Your task to perform on an android device: see creations saved in the google photos Image 0: 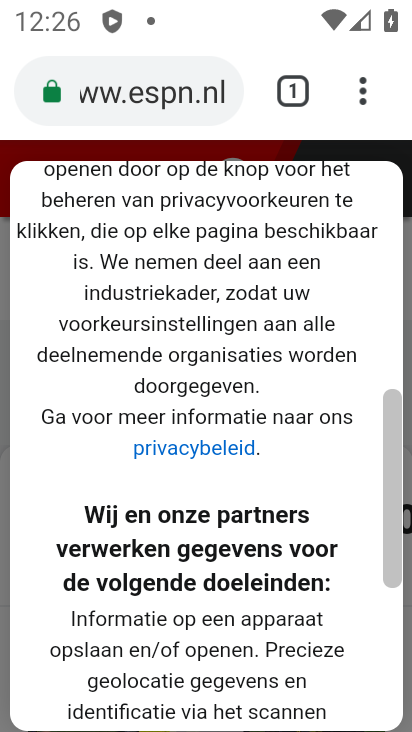
Step 0: press home button
Your task to perform on an android device: see creations saved in the google photos Image 1: 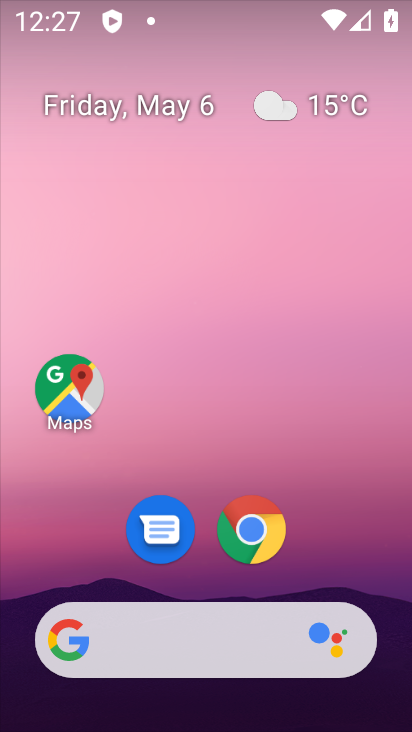
Step 1: drag from (333, 525) to (327, 104)
Your task to perform on an android device: see creations saved in the google photos Image 2: 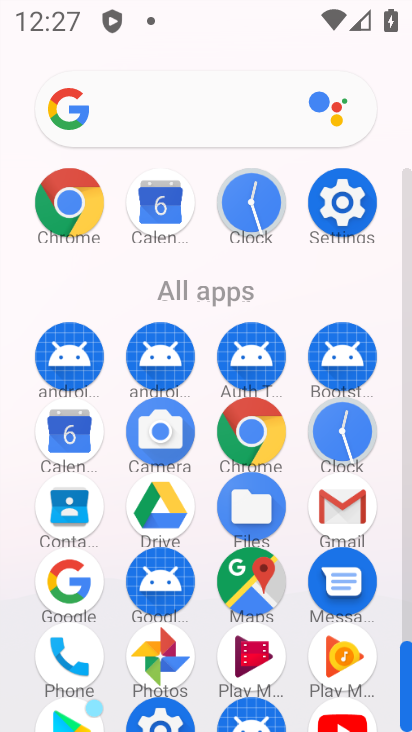
Step 2: click (163, 653)
Your task to perform on an android device: see creations saved in the google photos Image 3: 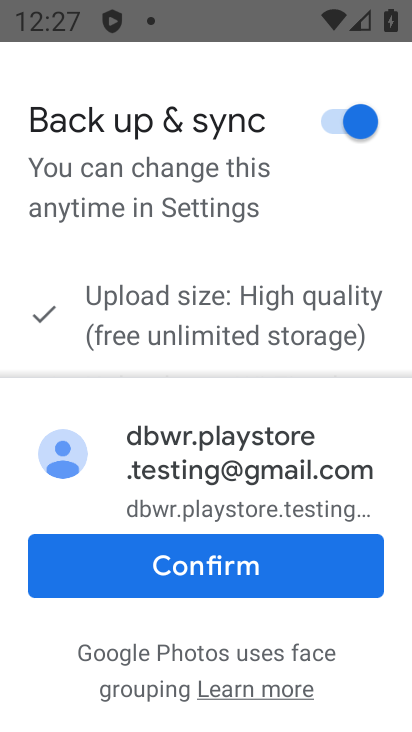
Step 3: click (253, 564)
Your task to perform on an android device: see creations saved in the google photos Image 4: 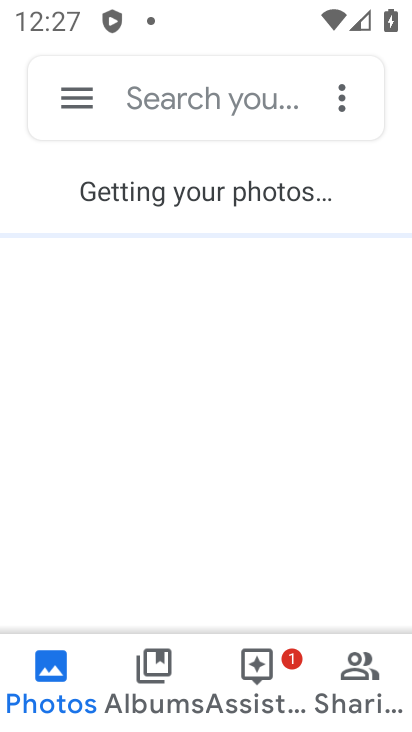
Step 4: click (195, 113)
Your task to perform on an android device: see creations saved in the google photos Image 5: 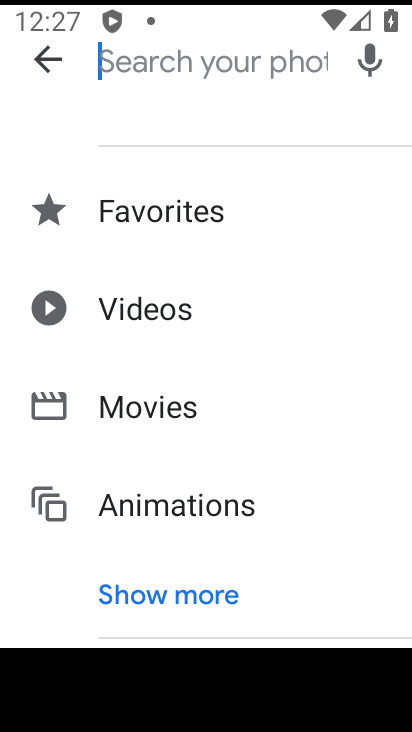
Step 5: click (220, 605)
Your task to perform on an android device: see creations saved in the google photos Image 6: 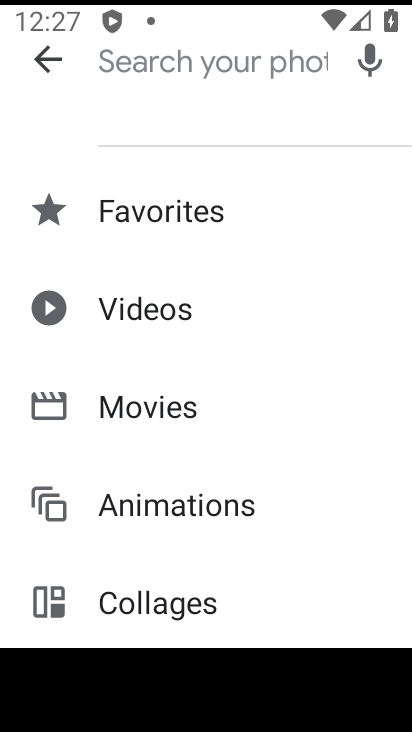
Step 6: drag from (220, 605) to (194, 280)
Your task to perform on an android device: see creations saved in the google photos Image 7: 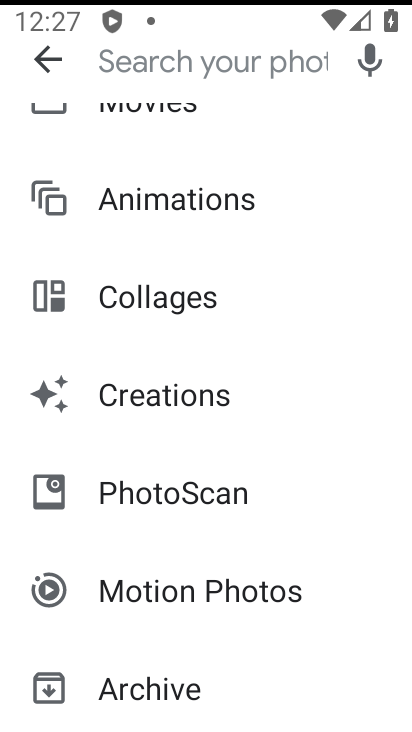
Step 7: click (195, 378)
Your task to perform on an android device: see creations saved in the google photos Image 8: 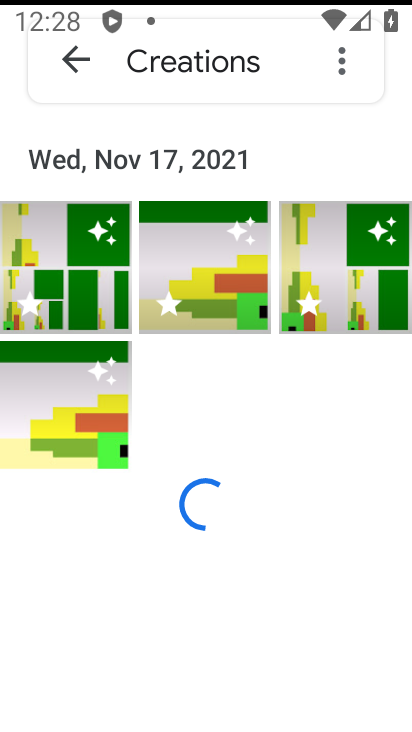
Step 8: task complete